Your task to perform on an android device: see creations saved in the google photos Image 0: 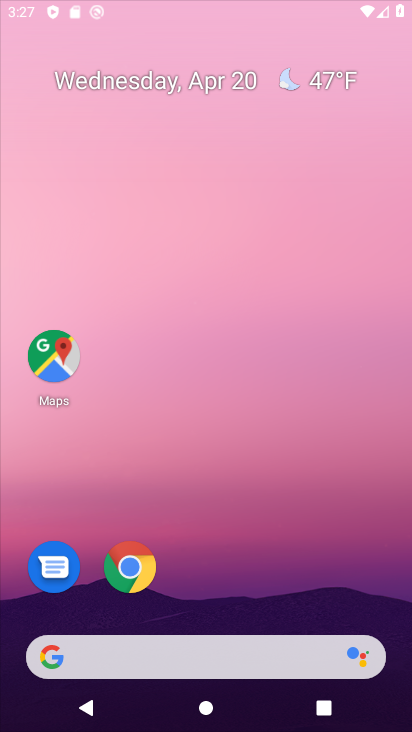
Step 0: click (207, 58)
Your task to perform on an android device: see creations saved in the google photos Image 1: 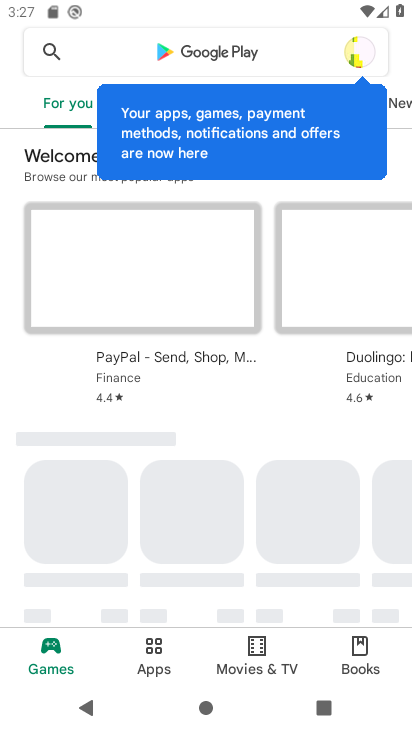
Step 1: press home button
Your task to perform on an android device: see creations saved in the google photos Image 2: 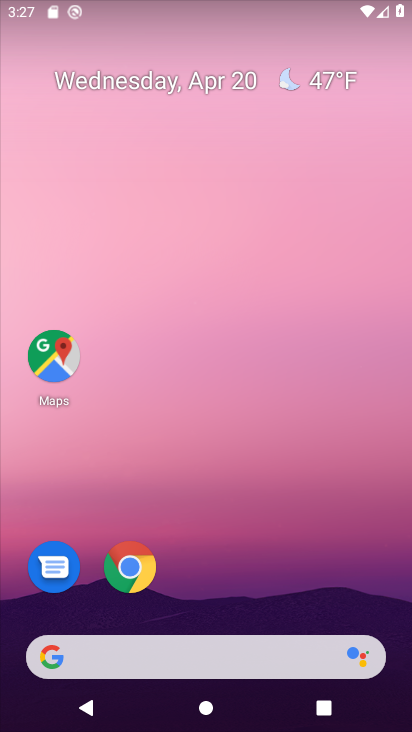
Step 2: drag from (176, 605) to (183, 45)
Your task to perform on an android device: see creations saved in the google photos Image 3: 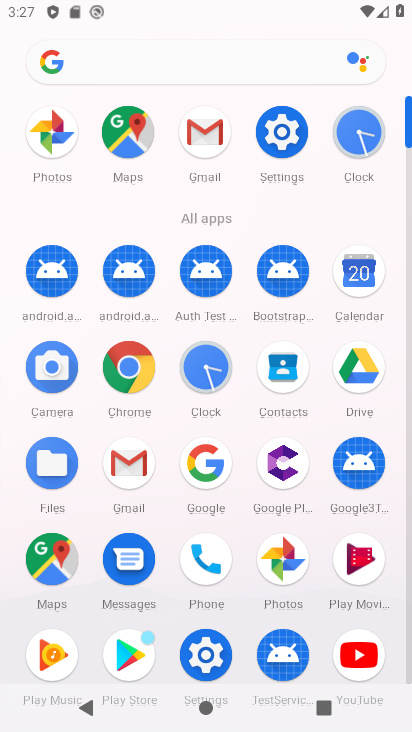
Step 3: click (290, 548)
Your task to perform on an android device: see creations saved in the google photos Image 4: 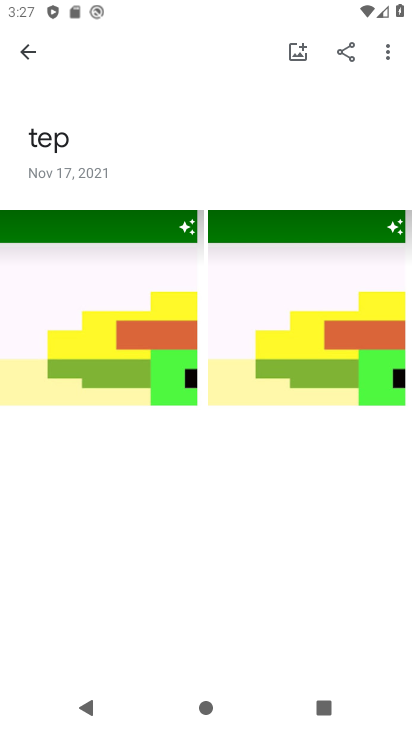
Step 4: click (29, 60)
Your task to perform on an android device: see creations saved in the google photos Image 5: 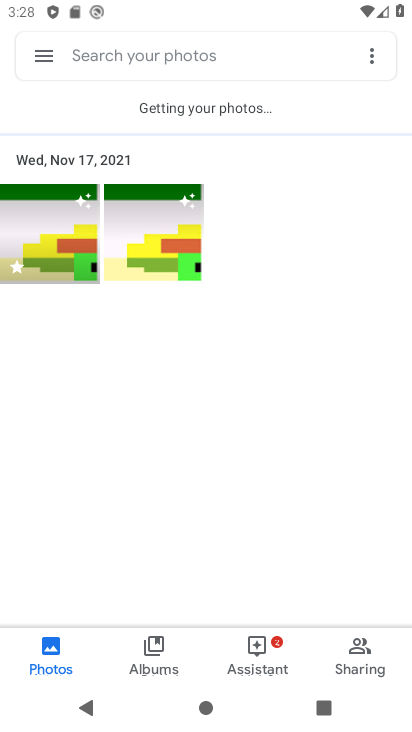
Step 5: click (158, 666)
Your task to perform on an android device: see creations saved in the google photos Image 6: 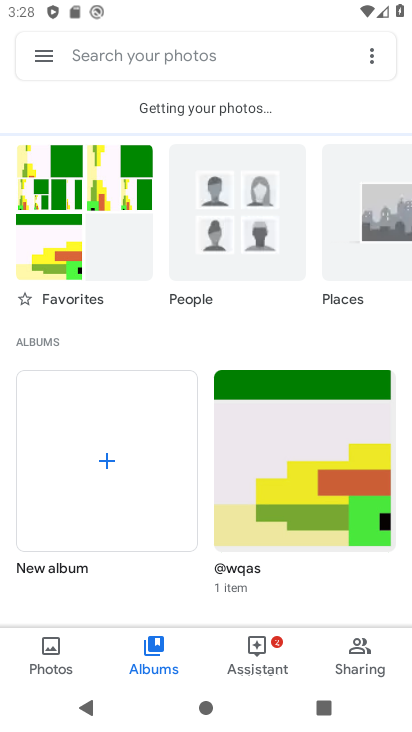
Step 6: click (257, 658)
Your task to perform on an android device: see creations saved in the google photos Image 7: 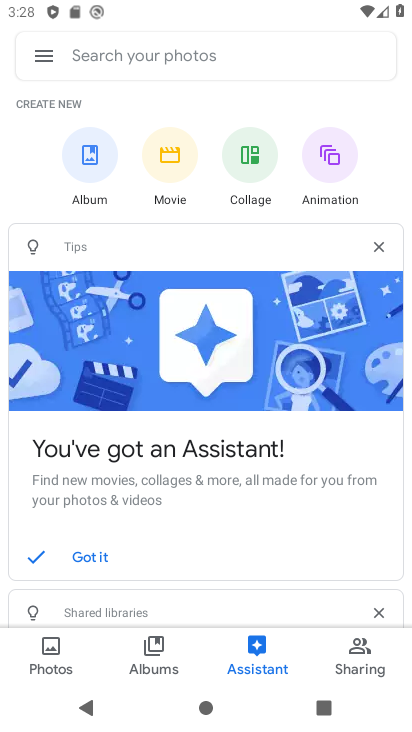
Step 7: task complete